Your task to perform on an android device: toggle notifications settings in the gmail app Image 0: 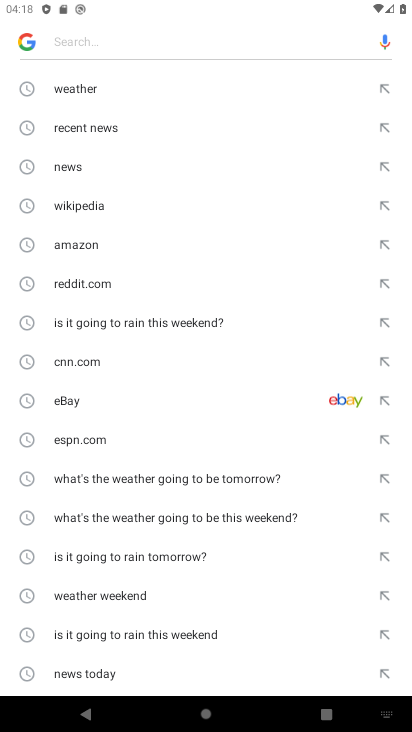
Step 0: press back button
Your task to perform on an android device: toggle notifications settings in the gmail app Image 1: 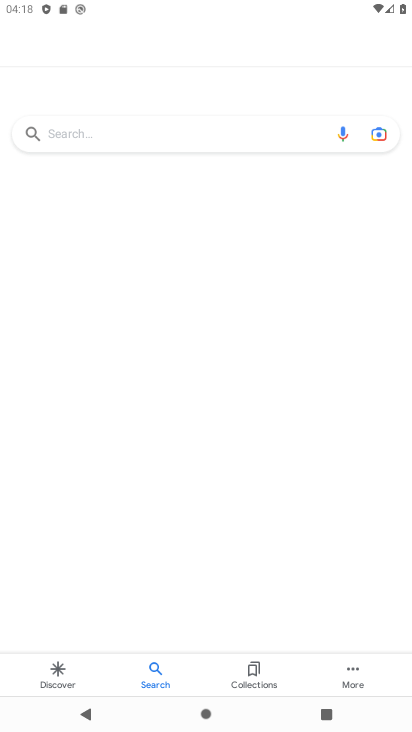
Step 1: press back button
Your task to perform on an android device: toggle notifications settings in the gmail app Image 2: 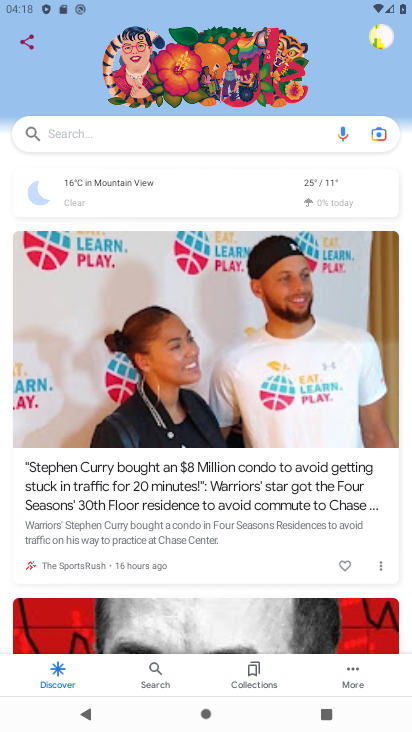
Step 2: press back button
Your task to perform on an android device: toggle notifications settings in the gmail app Image 3: 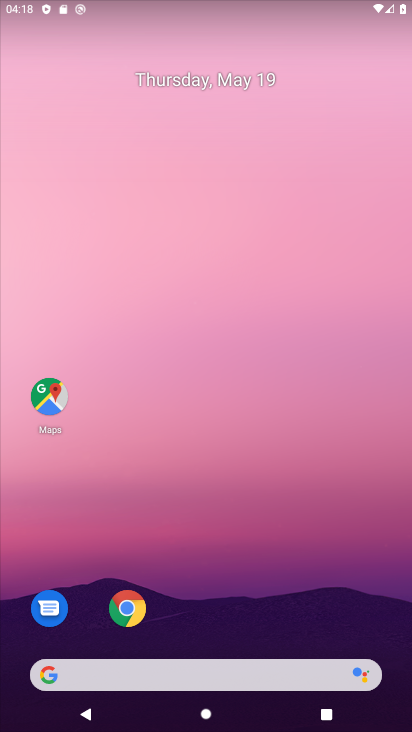
Step 3: drag from (273, 610) to (186, 49)
Your task to perform on an android device: toggle notifications settings in the gmail app Image 4: 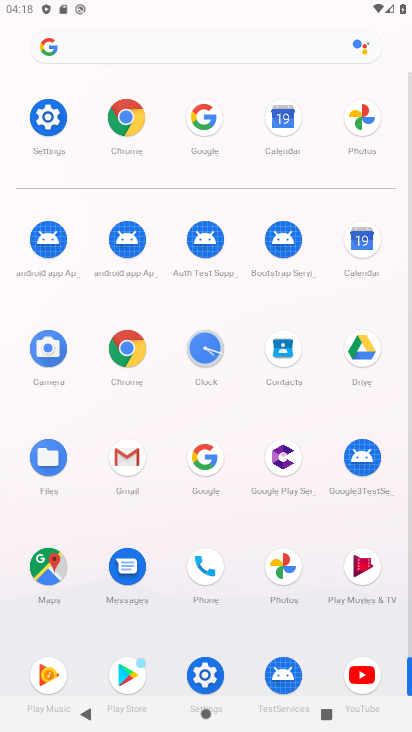
Step 4: click (127, 454)
Your task to perform on an android device: toggle notifications settings in the gmail app Image 5: 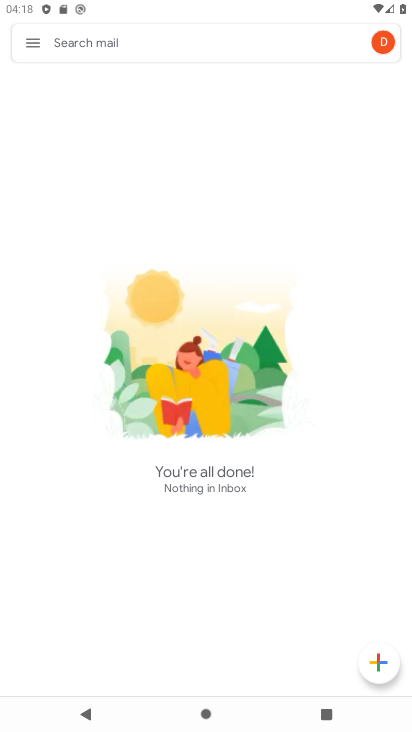
Step 5: click (34, 42)
Your task to perform on an android device: toggle notifications settings in the gmail app Image 6: 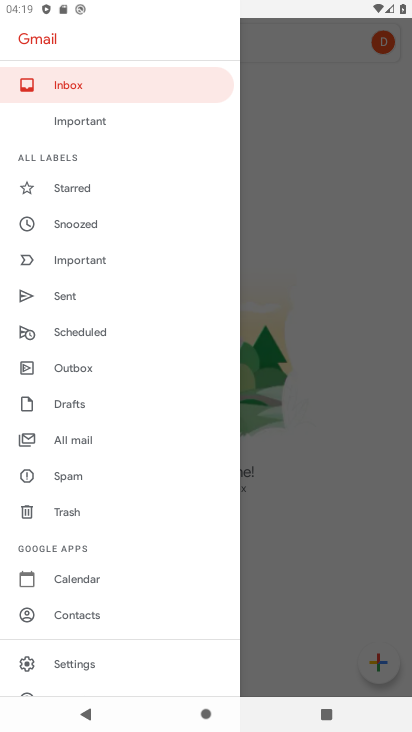
Step 6: click (75, 663)
Your task to perform on an android device: toggle notifications settings in the gmail app Image 7: 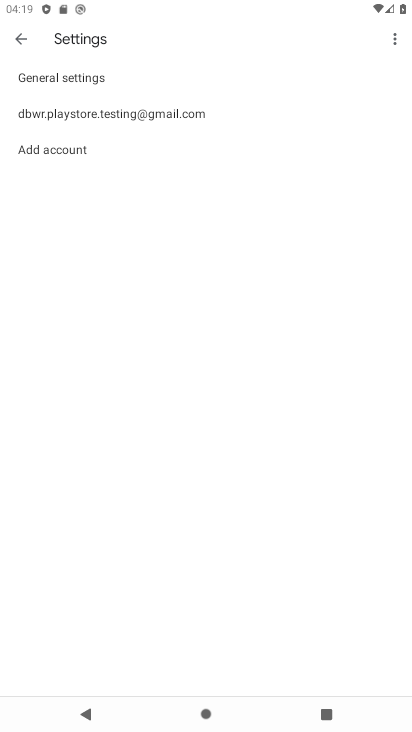
Step 7: click (169, 114)
Your task to perform on an android device: toggle notifications settings in the gmail app Image 8: 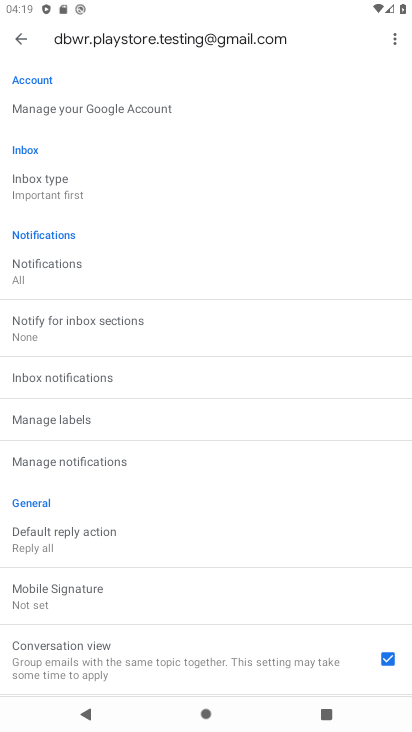
Step 8: click (69, 462)
Your task to perform on an android device: toggle notifications settings in the gmail app Image 9: 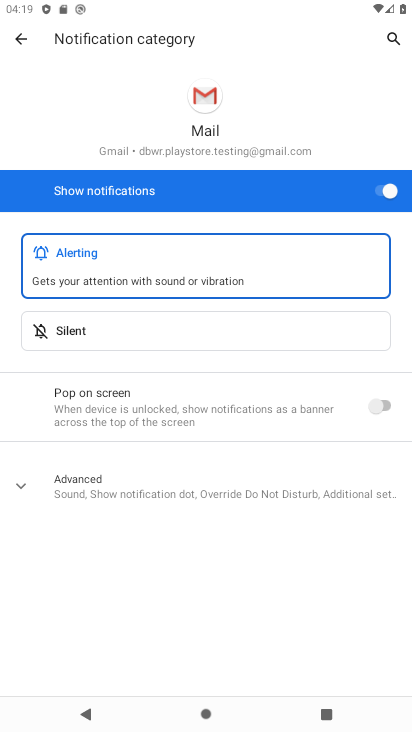
Step 9: click (394, 193)
Your task to perform on an android device: toggle notifications settings in the gmail app Image 10: 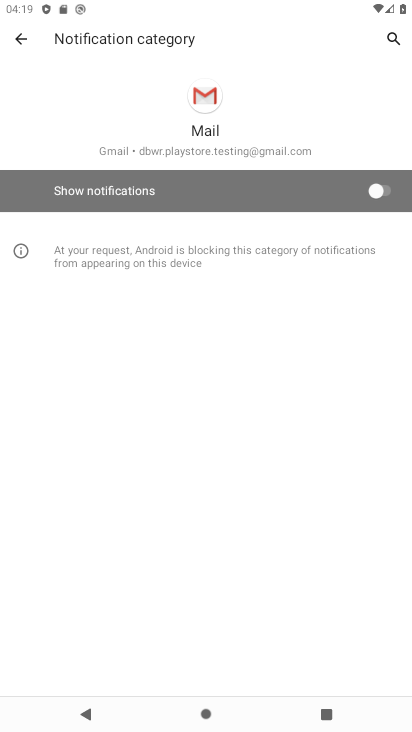
Step 10: task complete